Your task to perform on an android device: Go to display settings Image 0: 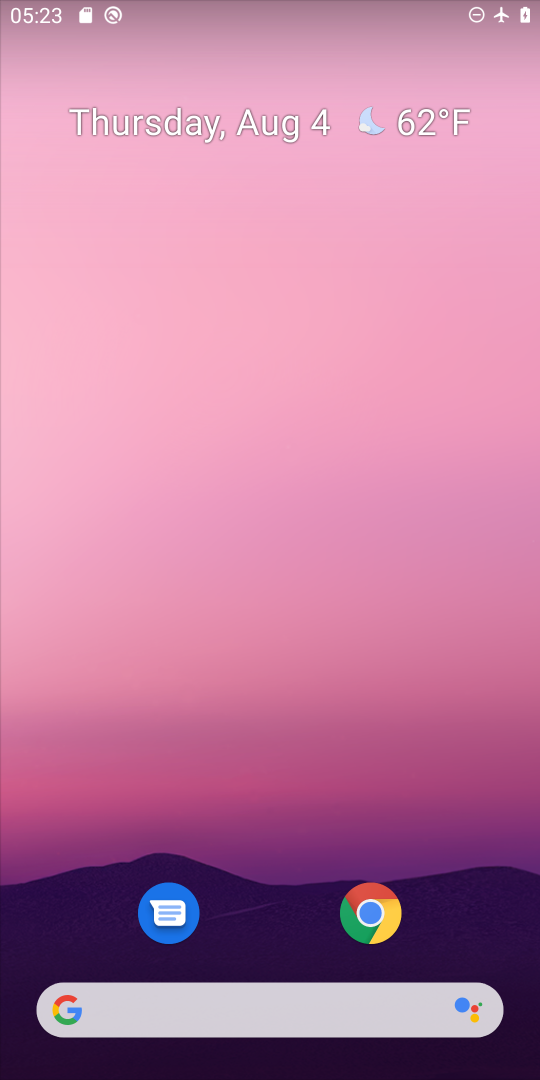
Step 0: drag from (323, 1023) to (410, 9)
Your task to perform on an android device: Go to display settings Image 1: 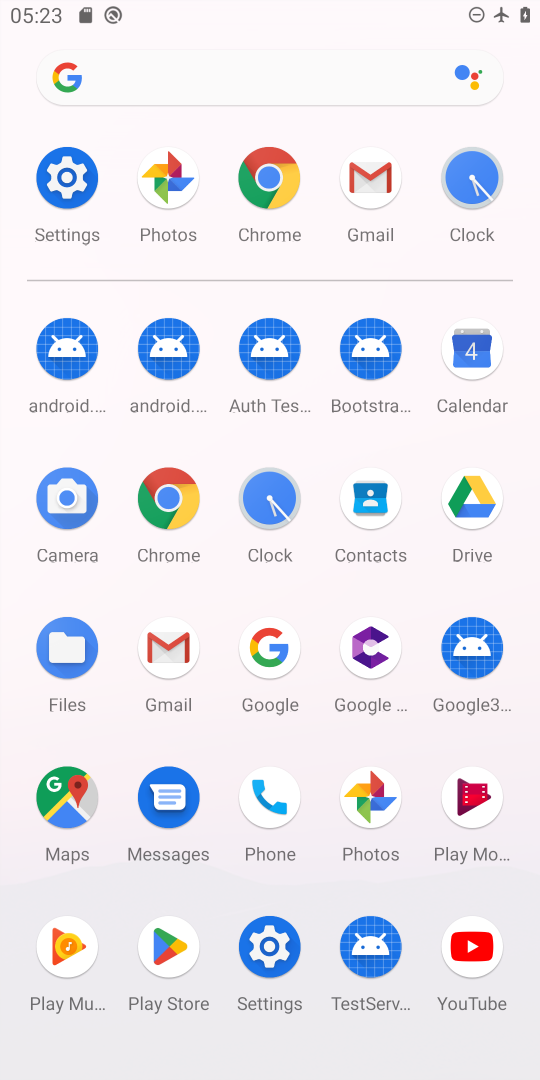
Step 1: click (84, 178)
Your task to perform on an android device: Go to display settings Image 2: 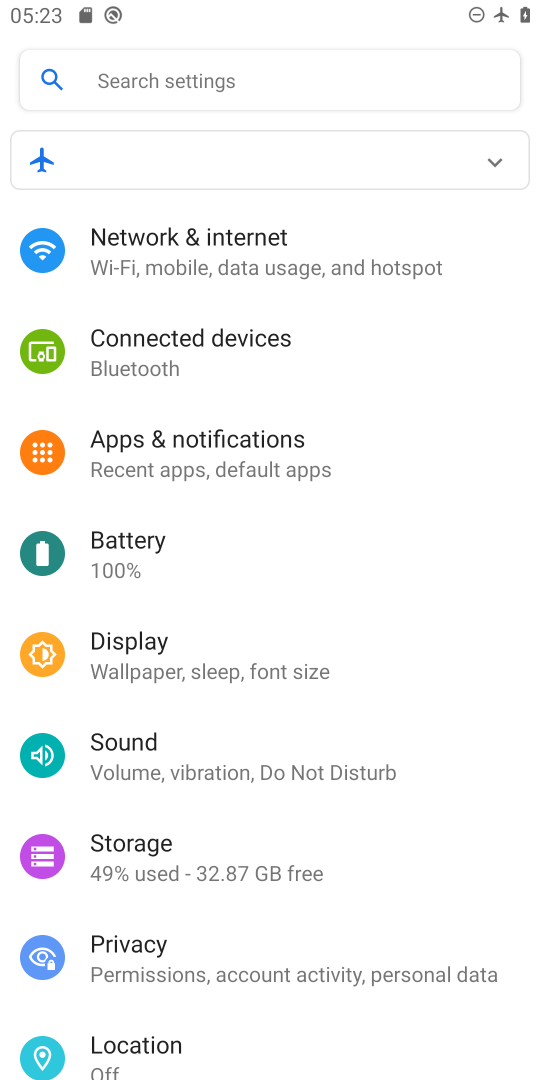
Step 2: click (168, 677)
Your task to perform on an android device: Go to display settings Image 3: 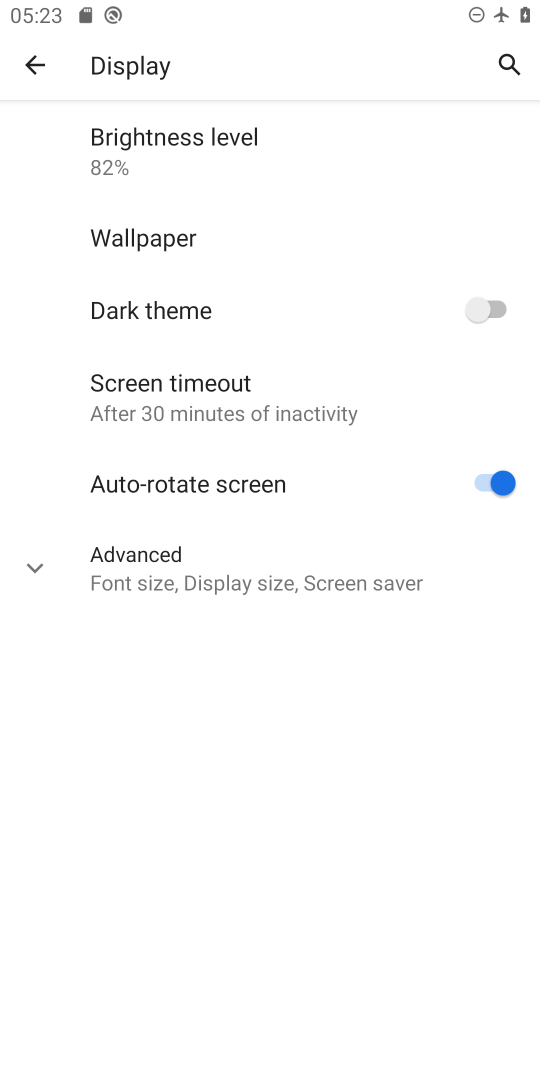
Step 3: task complete